Your task to perform on an android device: clear history in the chrome app Image 0: 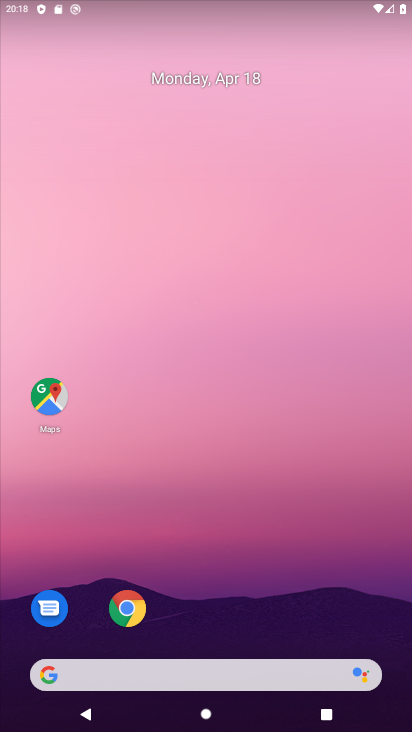
Step 0: click (125, 606)
Your task to perform on an android device: clear history in the chrome app Image 1: 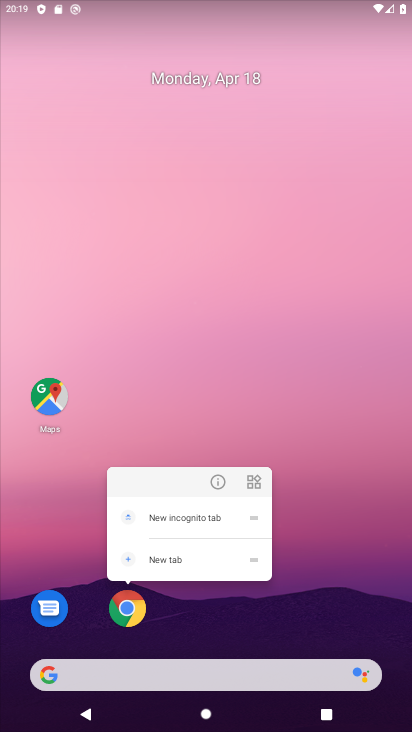
Step 1: click (130, 609)
Your task to perform on an android device: clear history in the chrome app Image 2: 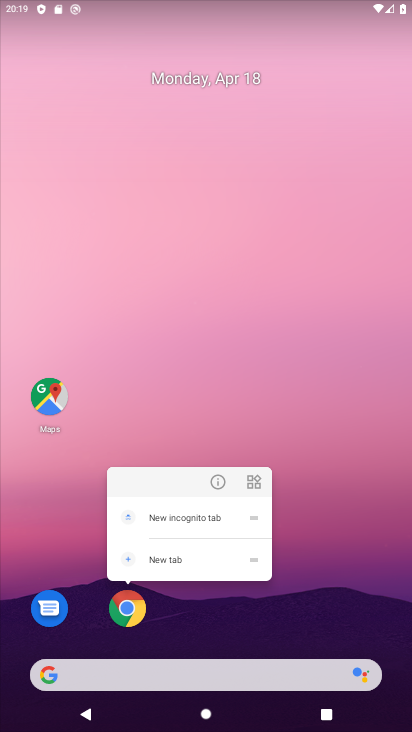
Step 2: click (130, 609)
Your task to perform on an android device: clear history in the chrome app Image 3: 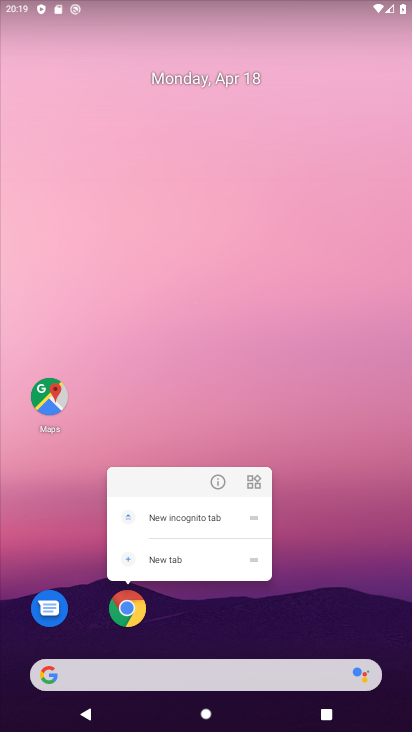
Step 3: click (315, 568)
Your task to perform on an android device: clear history in the chrome app Image 4: 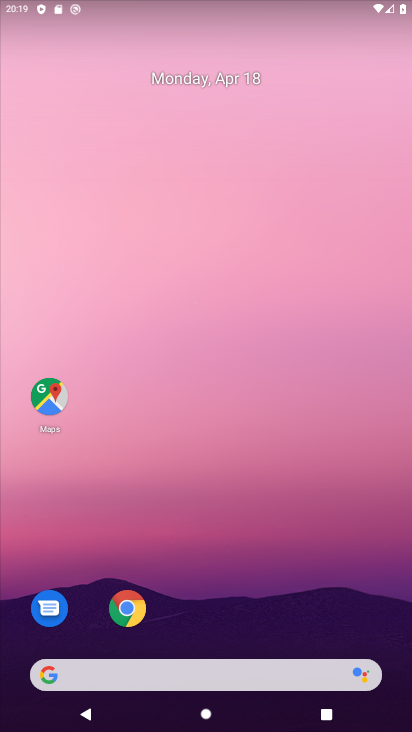
Step 4: click (129, 608)
Your task to perform on an android device: clear history in the chrome app Image 5: 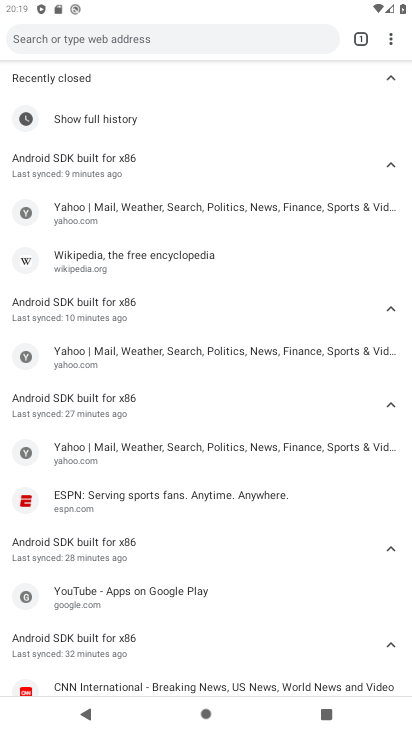
Step 5: click (391, 38)
Your task to perform on an android device: clear history in the chrome app Image 6: 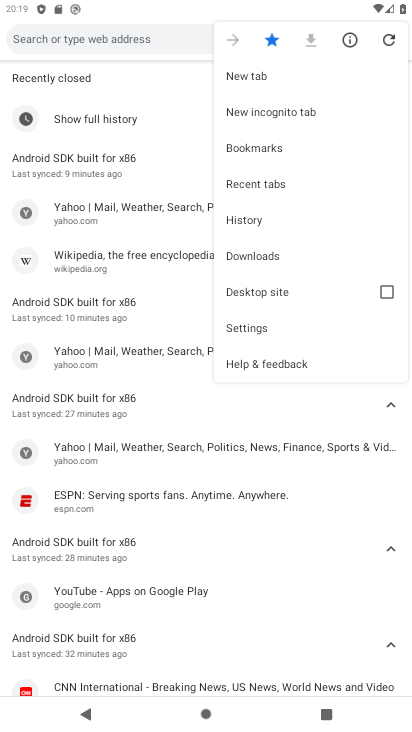
Step 6: click (277, 218)
Your task to perform on an android device: clear history in the chrome app Image 7: 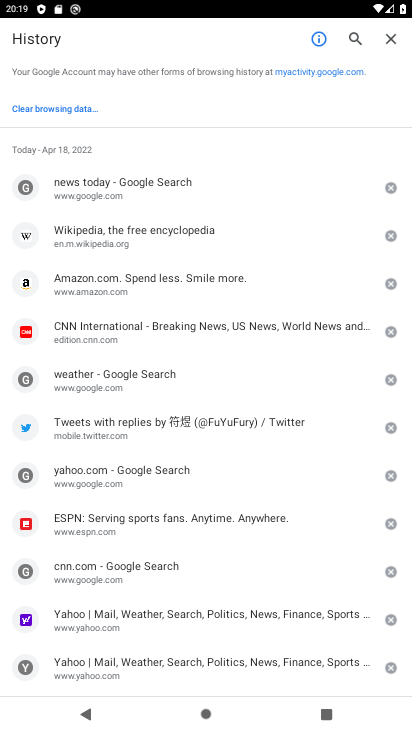
Step 7: click (77, 104)
Your task to perform on an android device: clear history in the chrome app Image 8: 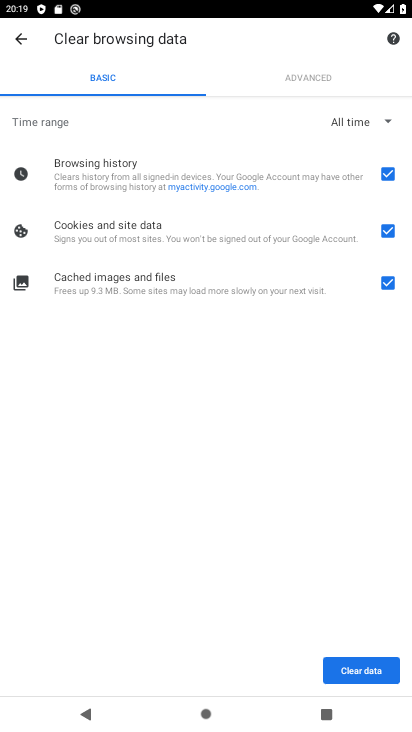
Step 8: click (387, 231)
Your task to perform on an android device: clear history in the chrome app Image 9: 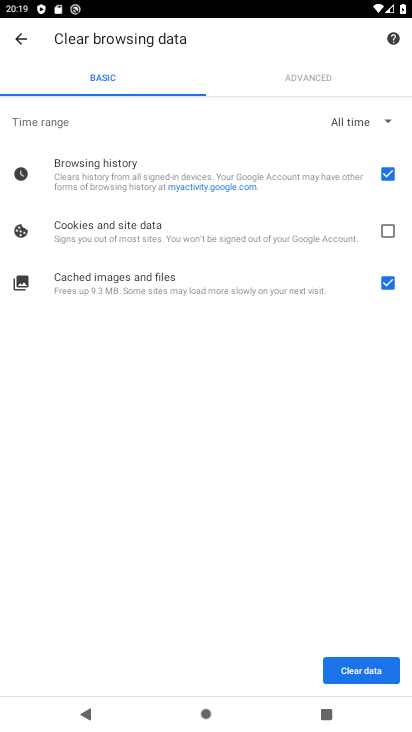
Step 9: click (388, 285)
Your task to perform on an android device: clear history in the chrome app Image 10: 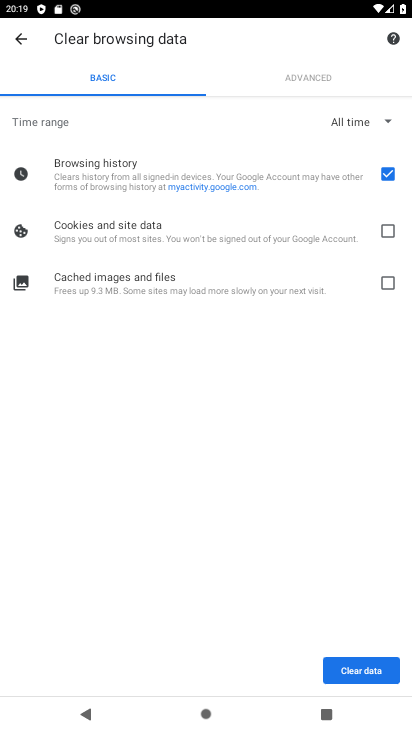
Step 10: click (354, 671)
Your task to perform on an android device: clear history in the chrome app Image 11: 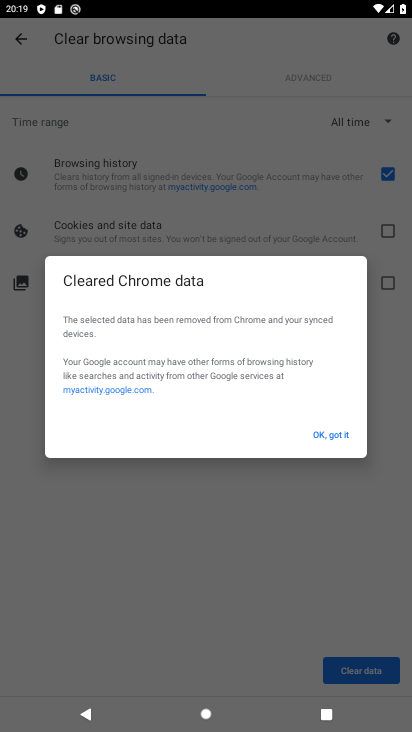
Step 11: click (341, 432)
Your task to perform on an android device: clear history in the chrome app Image 12: 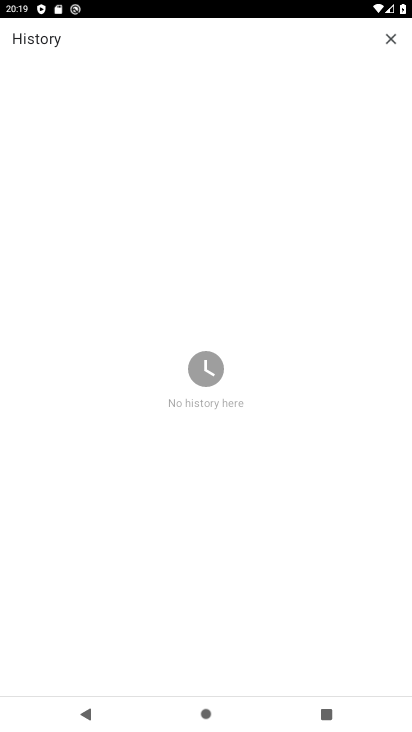
Step 12: task complete